Your task to perform on an android device: Go to privacy settings Image 0: 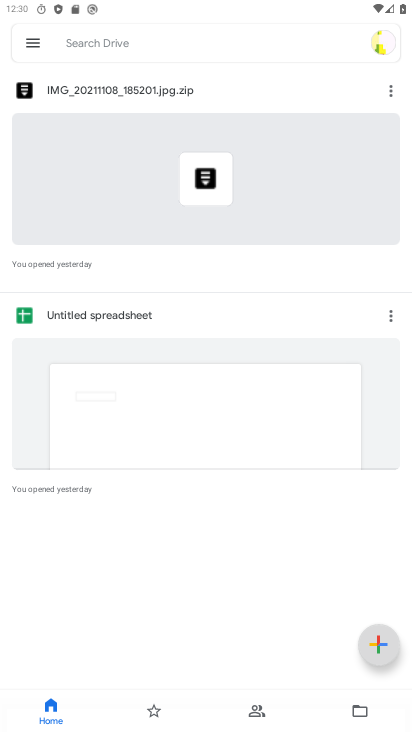
Step 0: press back button
Your task to perform on an android device: Go to privacy settings Image 1: 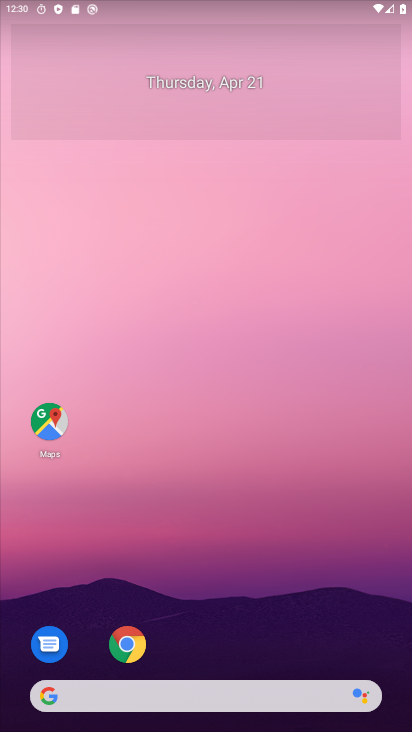
Step 1: drag from (226, 610) to (324, 72)
Your task to perform on an android device: Go to privacy settings Image 2: 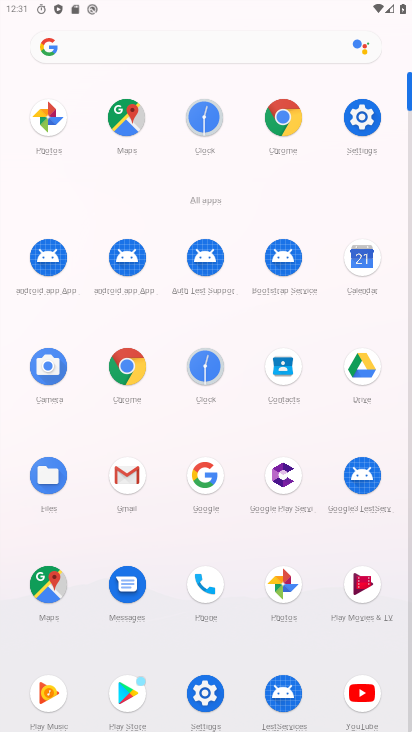
Step 2: click (366, 223)
Your task to perform on an android device: Go to privacy settings Image 3: 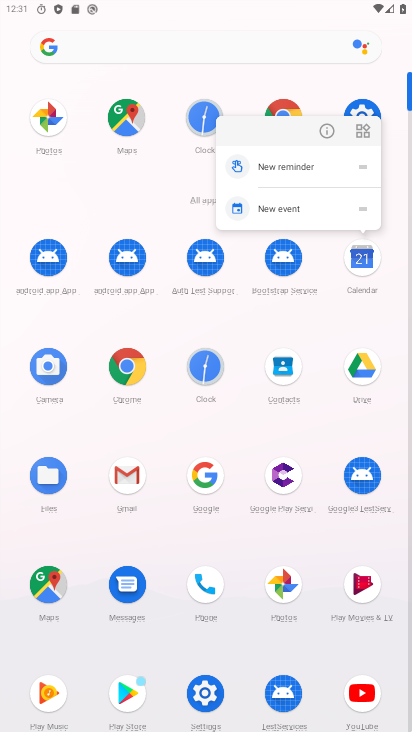
Step 3: click (360, 106)
Your task to perform on an android device: Go to privacy settings Image 4: 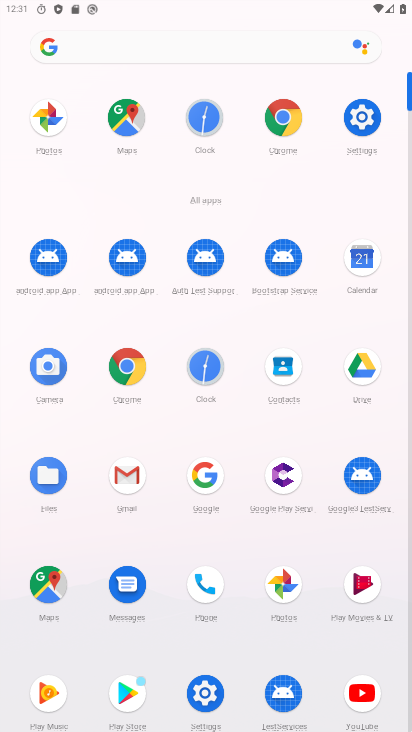
Step 4: click (365, 113)
Your task to perform on an android device: Go to privacy settings Image 5: 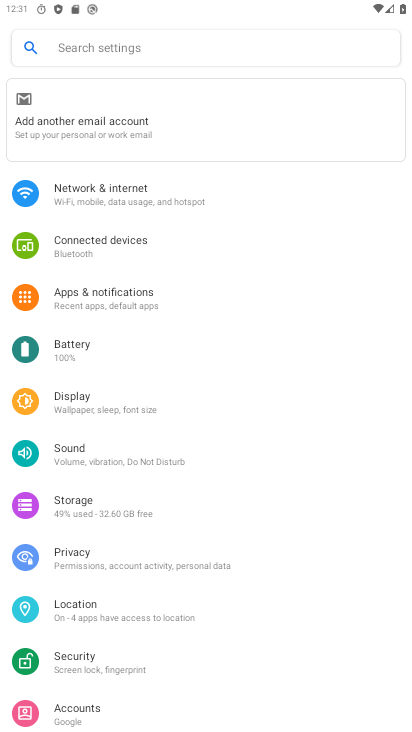
Step 5: click (91, 554)
Your task to perform on an android device: Go to privacy settings Image 6: 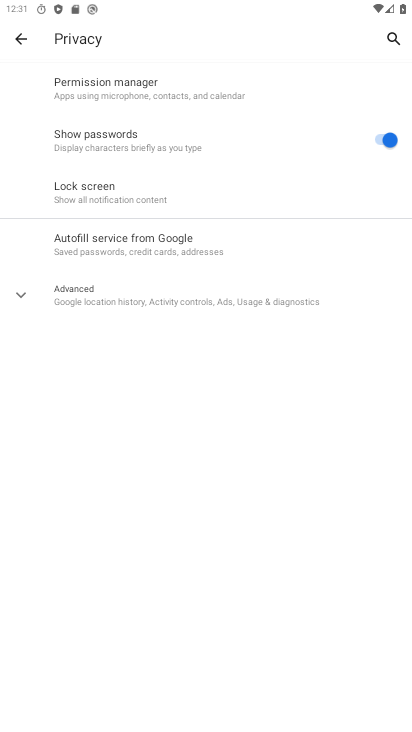
Step 6: task complete